Your task to perform on an android device: Open ESPN.com Image 0: 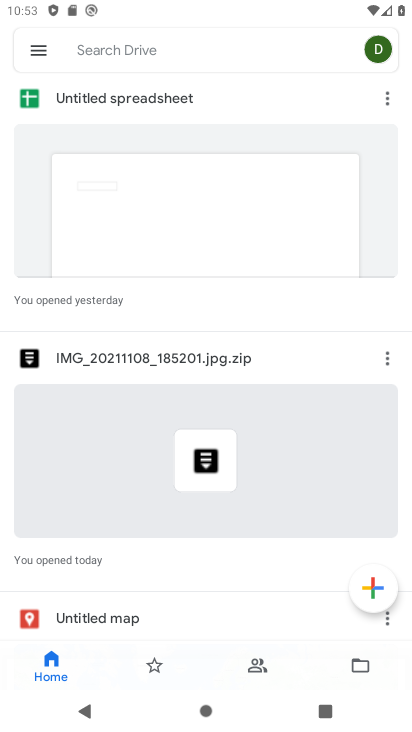
Step 0: press home button
Your task to perform on an android device: Open ESPN.com Image 1: 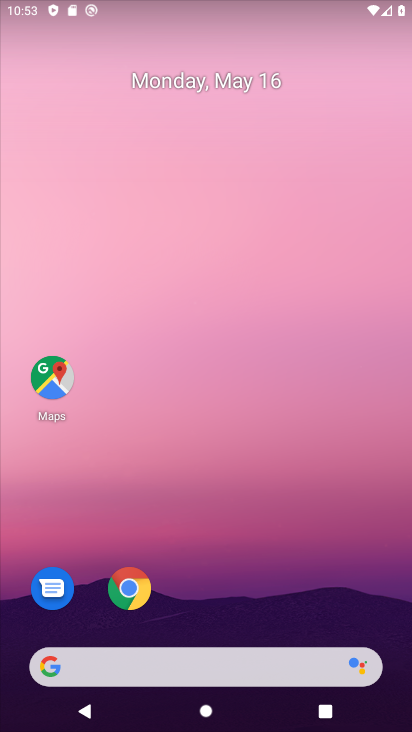
Step 1: drag from (337, 590) to (355, 96)
Your task to perform on an android device: Open ESPN.com Image 2: 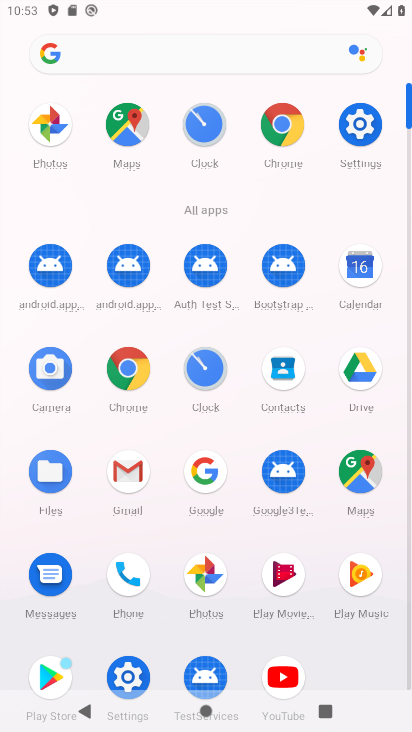
Step 2: click (300, 127)
Your task to perform on an android device: Open ESPN.com Image 3: 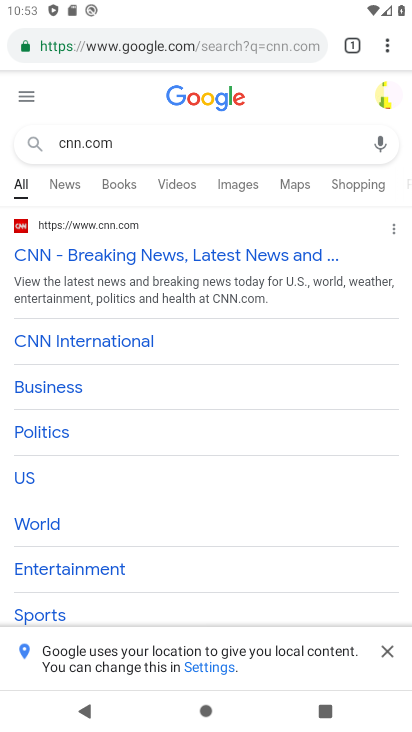
Step 3: click (193, 46)
Your task to perform on an android device: Open ESPN.com Image 4: 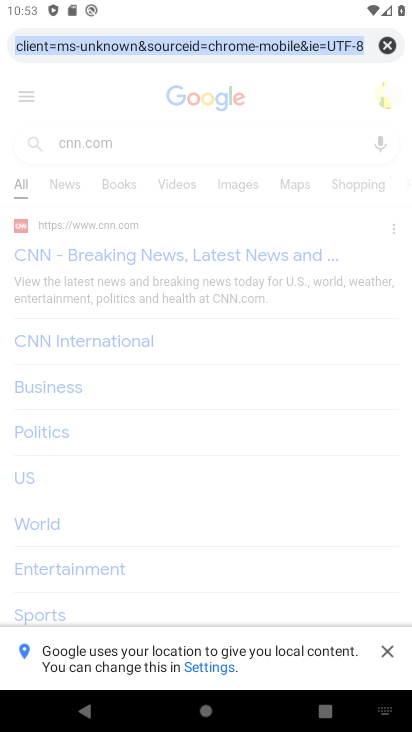
Step 4: click (389, 46)
Your task to perform on an android device: Open ESPN.com Image 5: 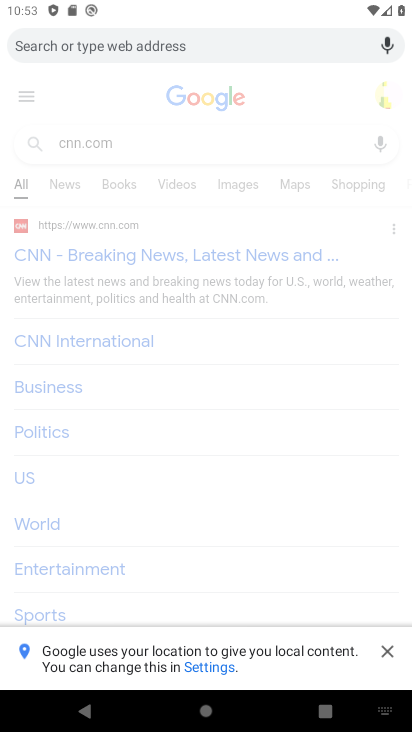
Step 5: type "espn.com"
Your task to perform on an android device: Open ESPN.com Image 6: 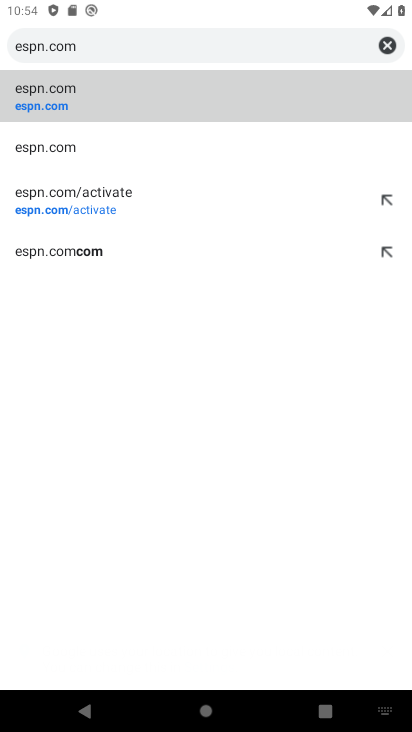
Step 6: click (130, 106)
Your task to perform on an android device: Open ESPN.com Image 7: 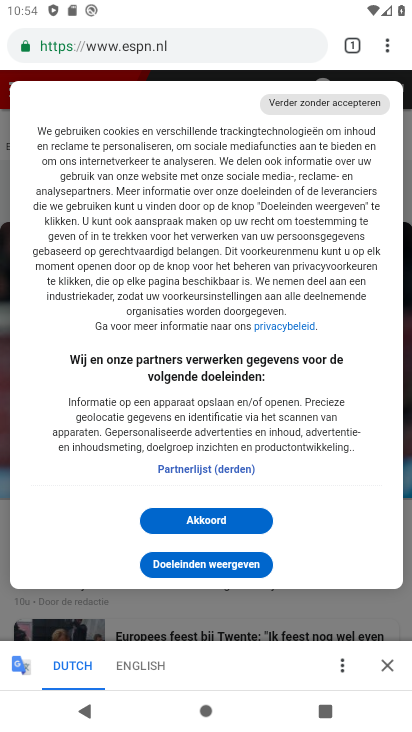
Step 7: task complete